Your task to perform on an android device: change notification settings in the gmail app Image 0: 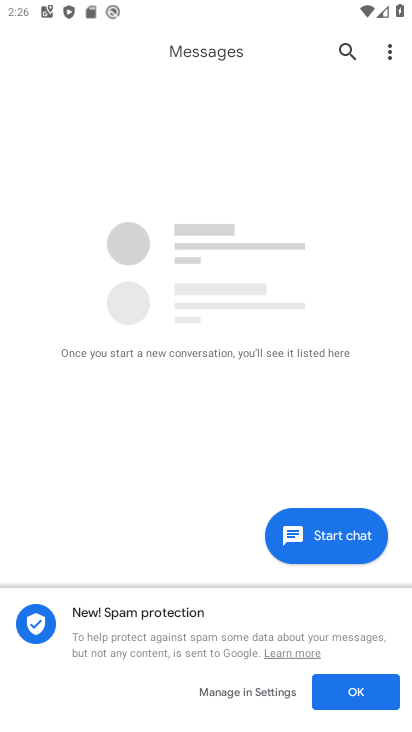
Step 0: drag from (396, 713) to (393, 136)
Your task to perform on an android device: change notification settings in the gmail app Image 1: 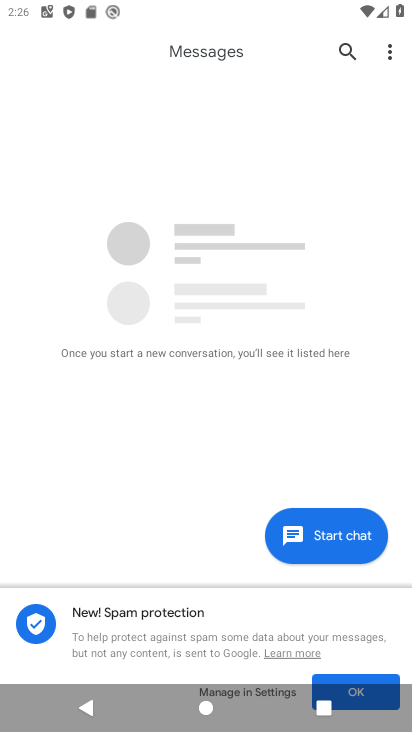
Step 1: press home button
Your task to perform on an android device: change notification settings in the gmail app Image 2: 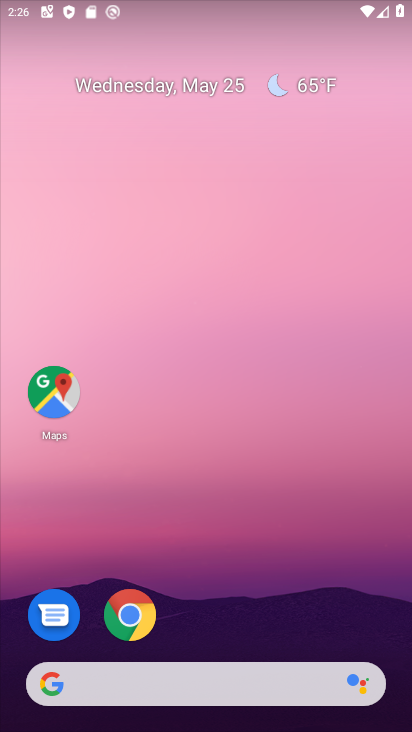
Step 2: drag from (390, 615) to (366, 159)
Your task to perform on an android device: change notification settings in the gmail app Image 3: 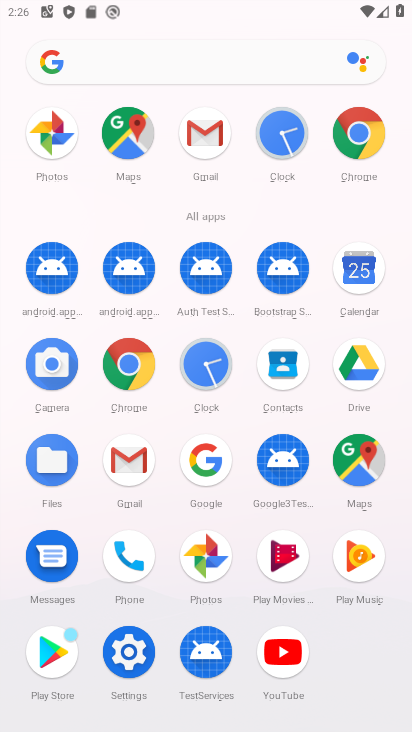
Step 3: click (195, 129)
Your task to perform on an android device: change notification settings in the gmail app Image 4: 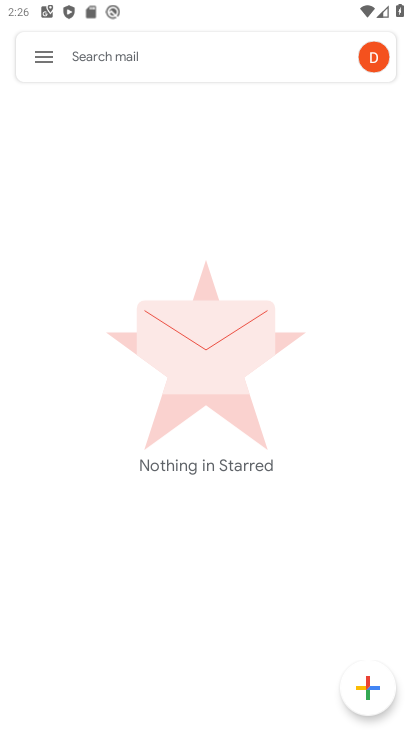
Step 4: click (43, 51)
Your task to perform on an android device: change notification settings in the gmail app Image 5: 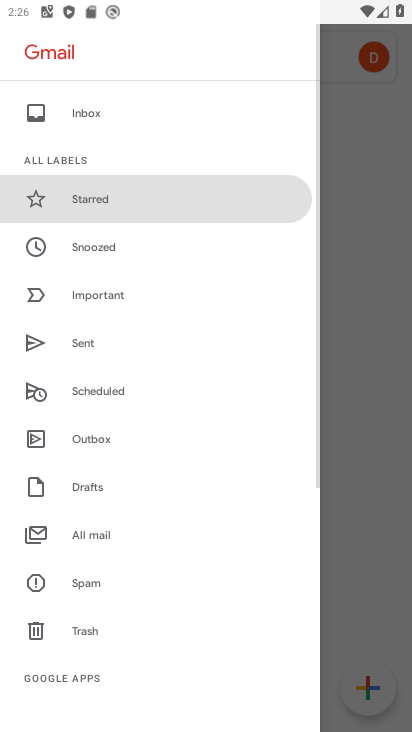
Step 5: drag from (181, 685) to (201, 199)
Your task to perform on an android device: change notification settings in the gmail app Image 6: 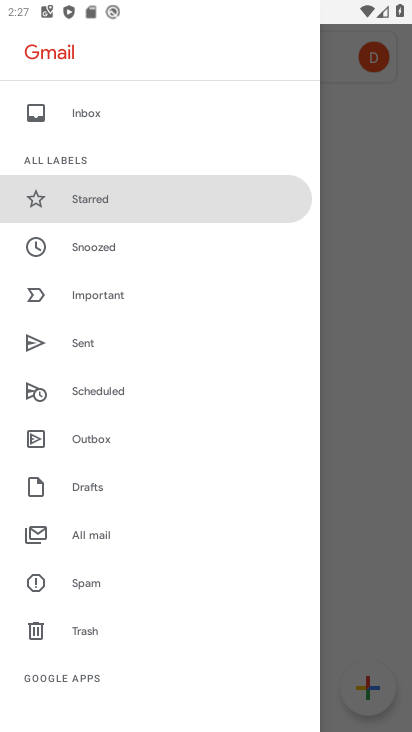
Step 6: drag from (196, 648) to (197, 125)
Your task to perform on an android device: change notification settings in the gmail app Image 7: 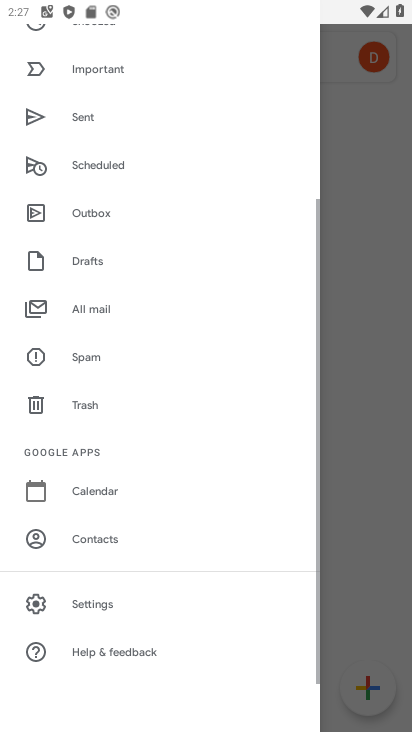
Step 7: click (79, 596)
Your task to perform on an android device: change notification settings in the gmail app Image 8: 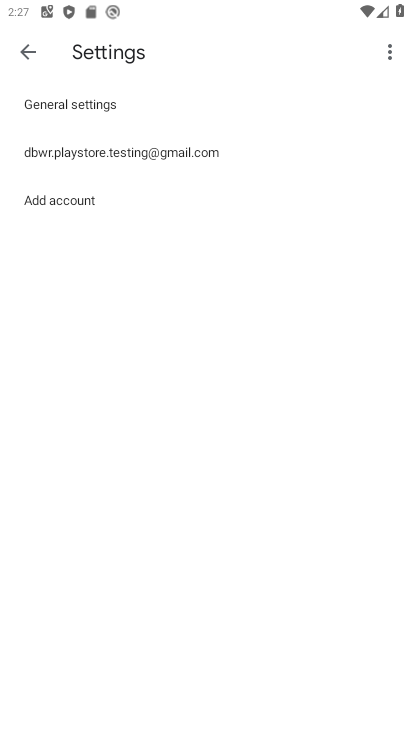
Step 8: click (76, 99)
Your task to perform on an android device: change notification settings in the gmail app Image 9: 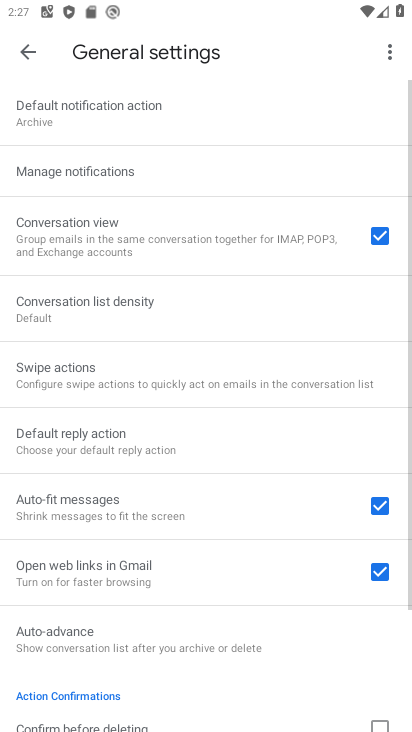
Step 9: click (56, 161)
Your task to perform on an android device: change notification settings in the gmail app Image 10: 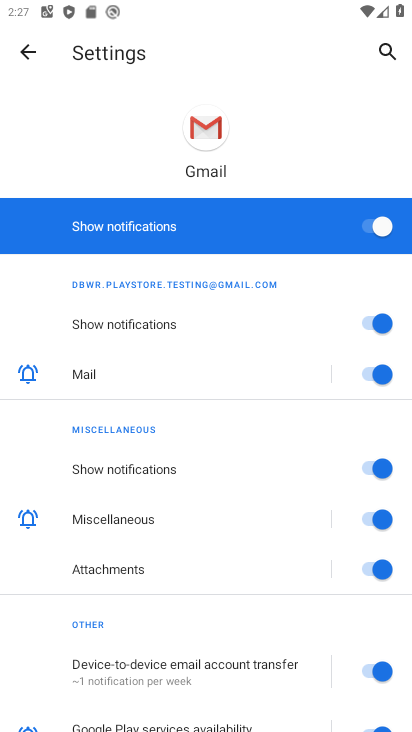
Step 10: click (370, 229)
Your task to perform on an android device: change notification settings in the gmail app Image 11: 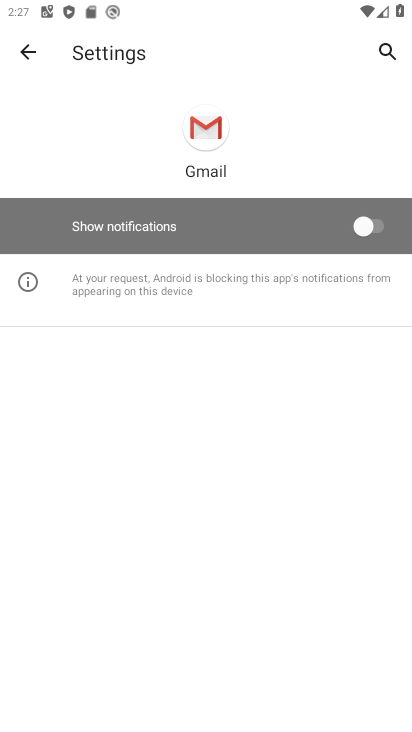
Step 11: task complete